Your task to perform on an android device: Show me productivity apps on the Play Store Image 0: 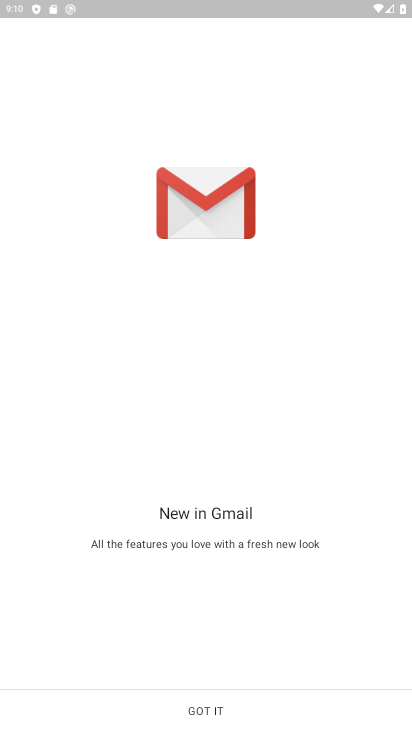
Step 0: press home button
Your task to perform on an android device: Show me productivity apps on the Play Store Image 1: 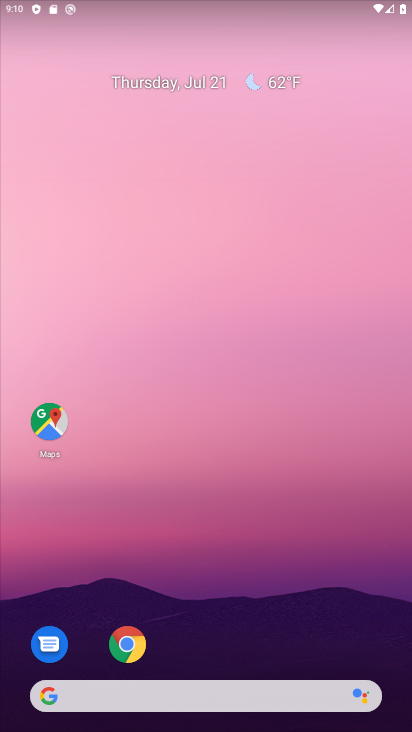
Step 1: drag from (259, 552) to (204, 12)
Your task to perform on an android device: Show me productivity apps on the Play Store Image 2: 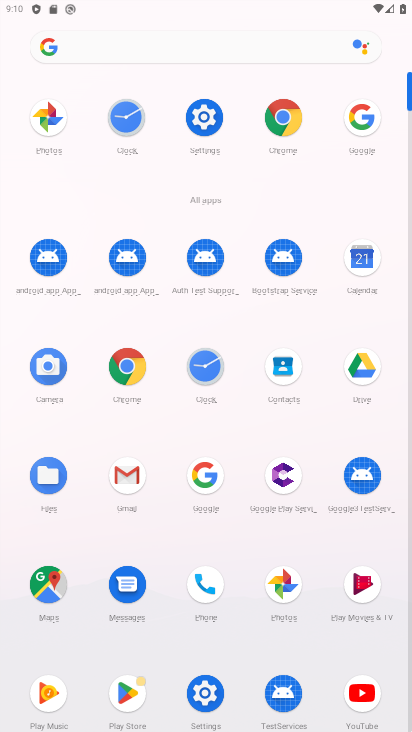
Step 2: click (132, 694)
Your task to perform on an android device: Show me productivity apps on the Play Store Image 3: 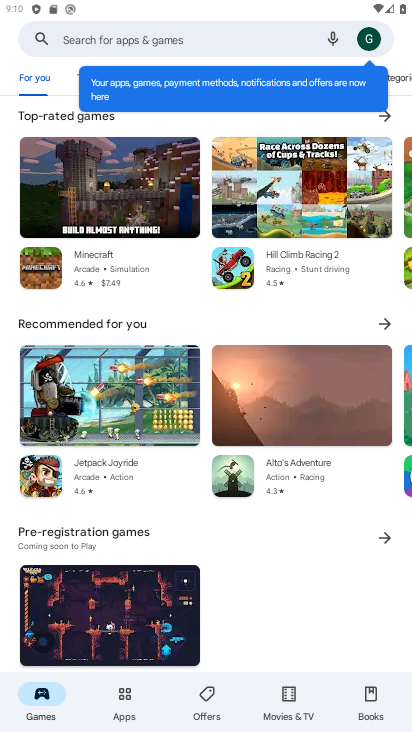
Step 3: click (150, 40)
Your task to perform on an android device: Show me productivity apps on the Play Store Image 4: 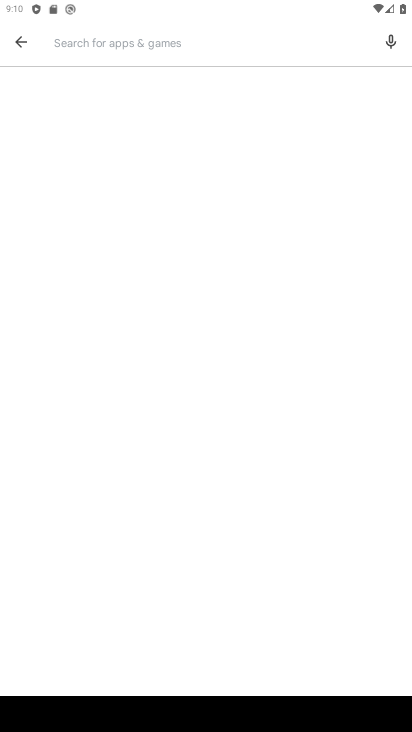
Step 4: type "productivity apps"
Your task to perform on an android device: Show me productivity apps on the Play Store Image 5: 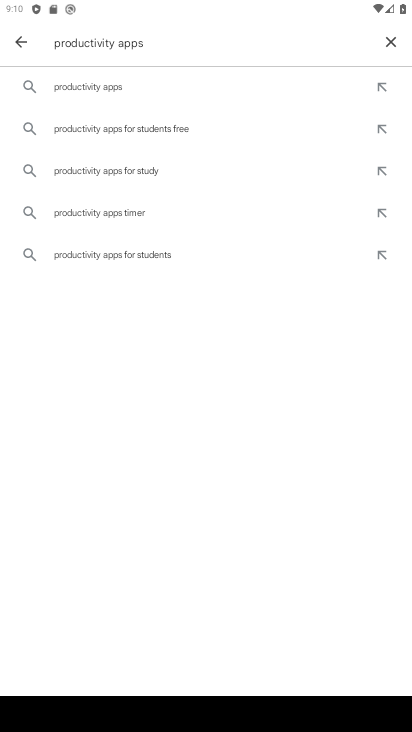
Step 5: click (94, 89)
Your task to perform on an android device: Show me productivity apps on the Play Store Image 6: 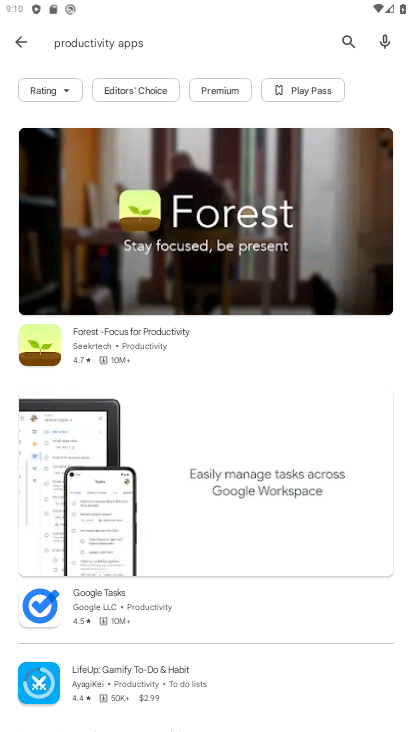
Step 6: task complete